Your task to perform on an android device: make emails show in primary in the gmail app Image 0: 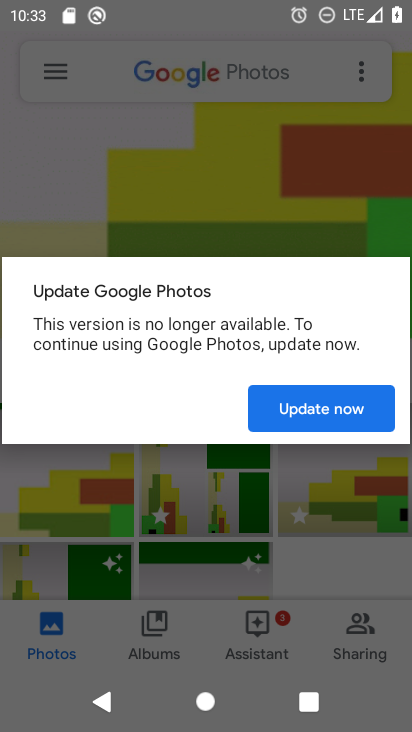
Step 0: press home button
Your task to perform on an android device: make emails show in primary in the gmail app Image 1: 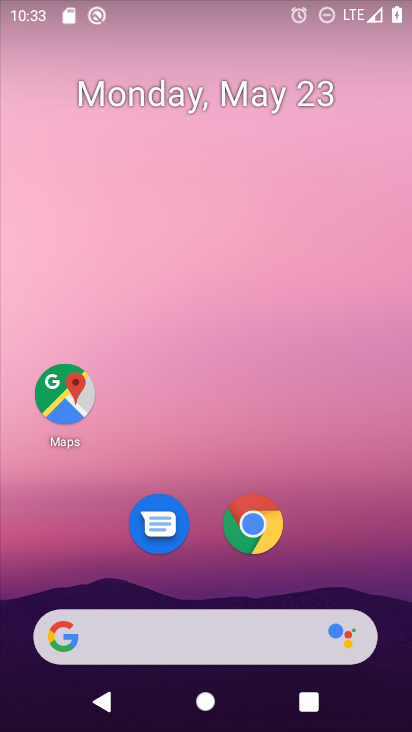
Step 1: drag from (202, 499) to (241, 32)
Your task to perform on an android device: make emails show in primary in the gmail app Image 2: 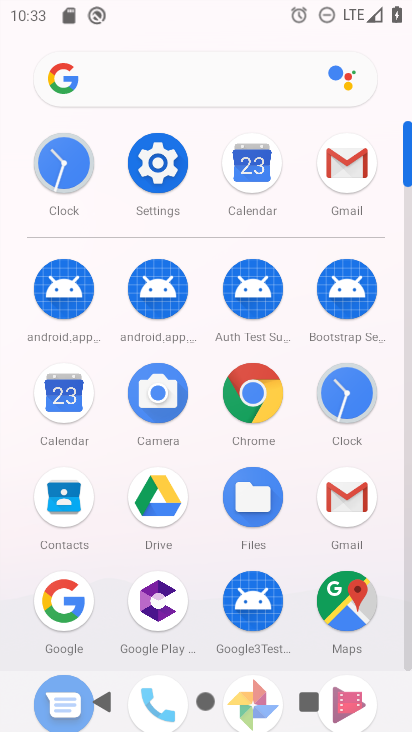
Step 2: click (332, 157)
Your task to perform on an android device: make emails show in primary in the gmail app Image 3: 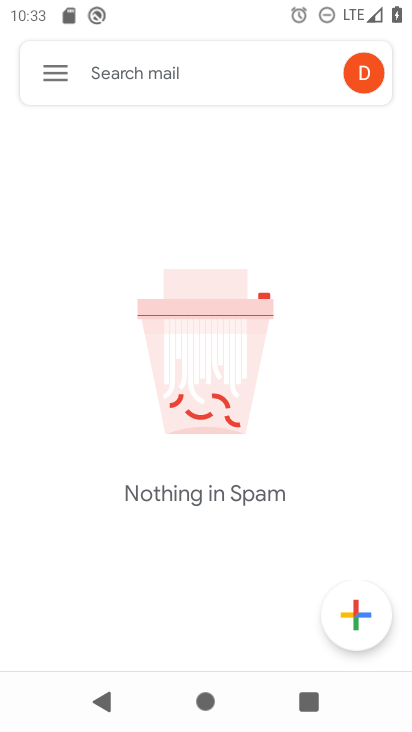
Step 3: click (55, 71)
Your task to perform on an android device: make emails show in primary in the gmail app Image 4: 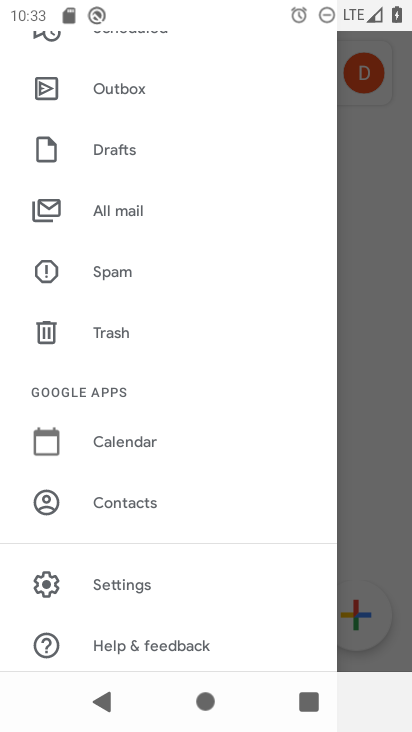
Step 4: click (142, 596)
Your task to perform on an android device: make emails show in primary in the gmail app Image 5: 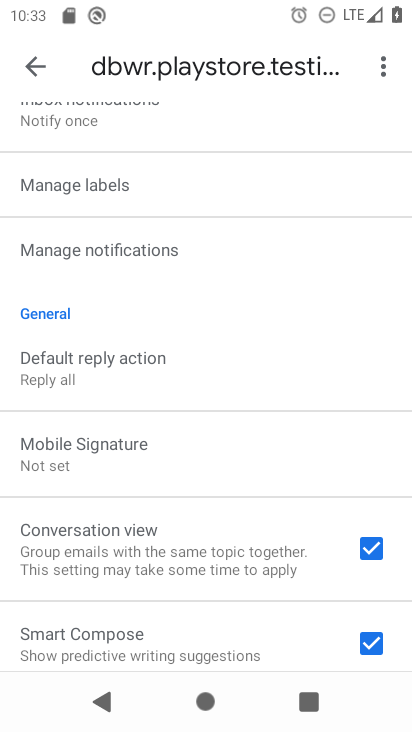
Step 5: drag from (158, 189) to (192, 577)
Your task to perform on an android device: make emails show in primary in the gmail app Image 6: 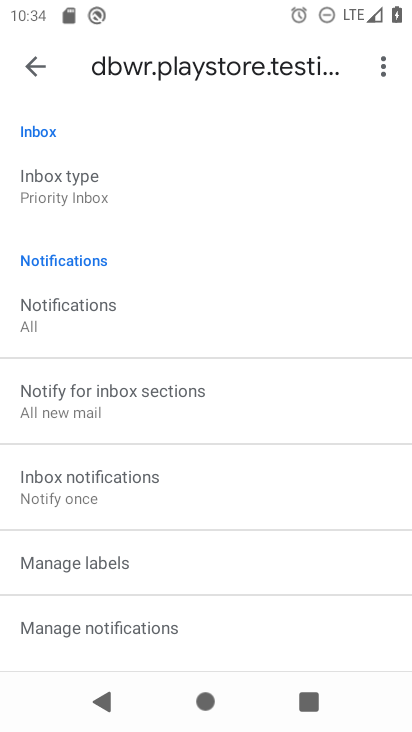
Step 6: click (57, 177)
Your task to perform on an android device: make emails show in primary in the gmail app Image 7: 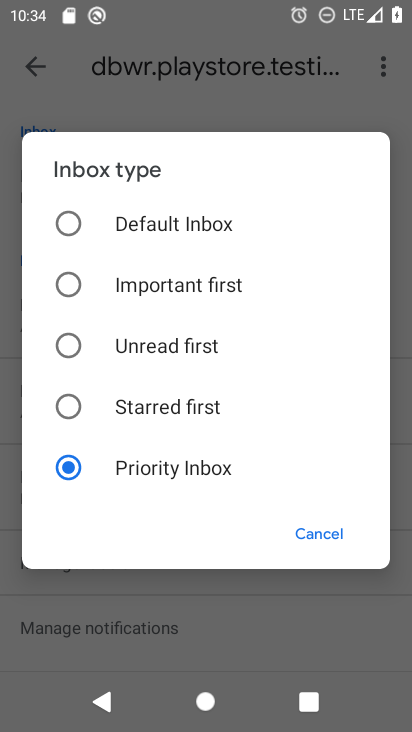
Step 7: click (62, 218)
Your task to perform on an android device: make emails show in primary in the gmail app Image 8: 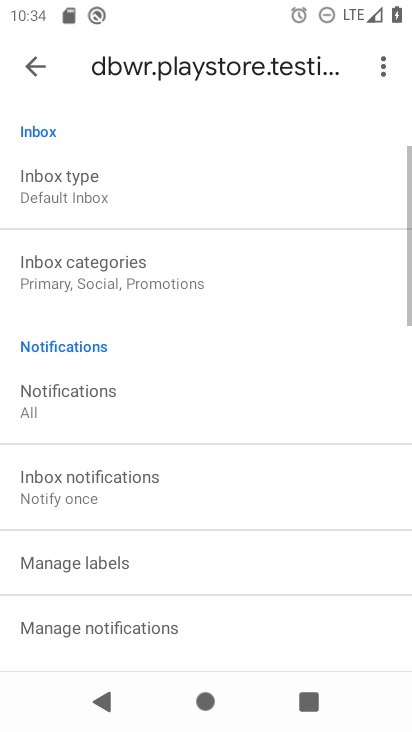
Step 8: click (78, 273)
Your task to perform on an android device: make emails show in primary in the gmail app Image 9: 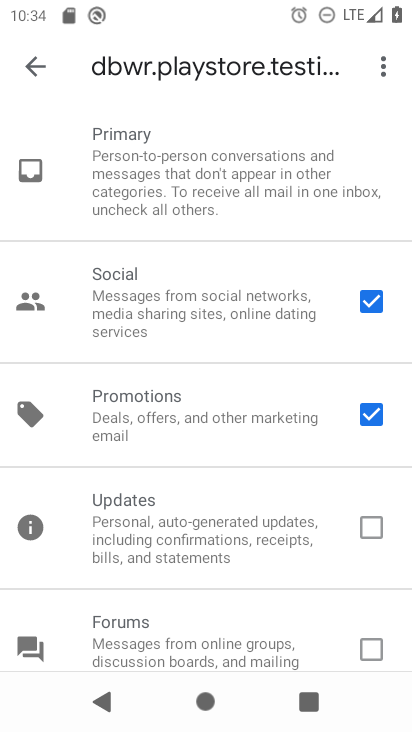
Step 9: click (366, 301)
Your task to perform on an android device: make emails show in primary in the gmail app Image 10: 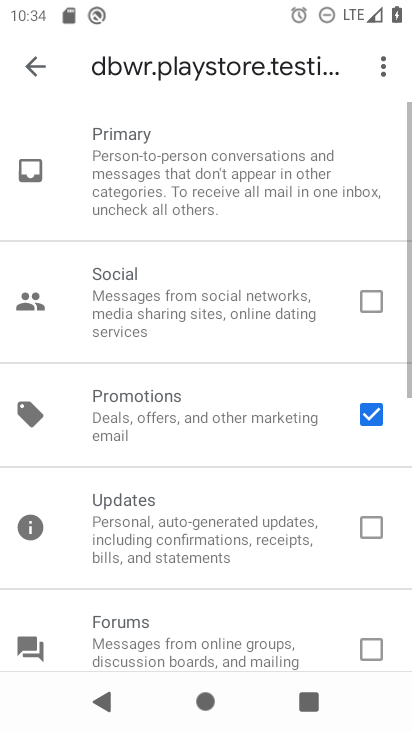
Step 10: click (366, 407)
Your task to perform on an android device: make emails show in primary in the gmail app Image 11: 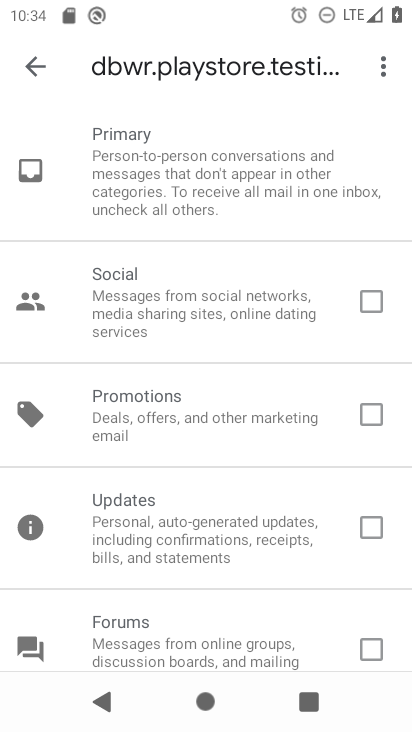
Step 11: click (38, 61)
Your task to perform on an android device: make emails show in primary in the gmail app Image 12: 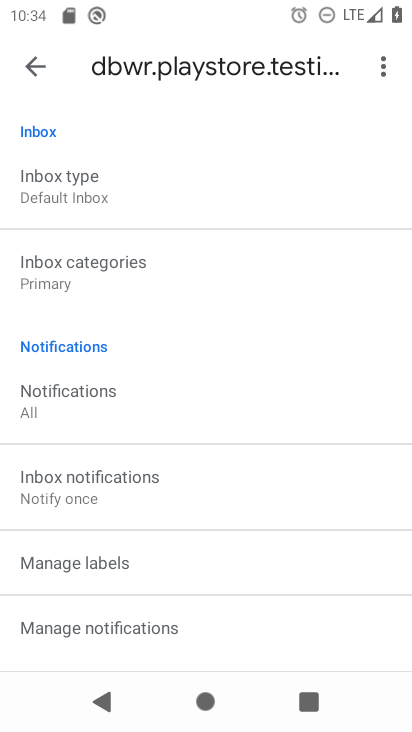
Step 12: task complete